Your task to perform on an android device: empty trash in the gmail app Image 0: 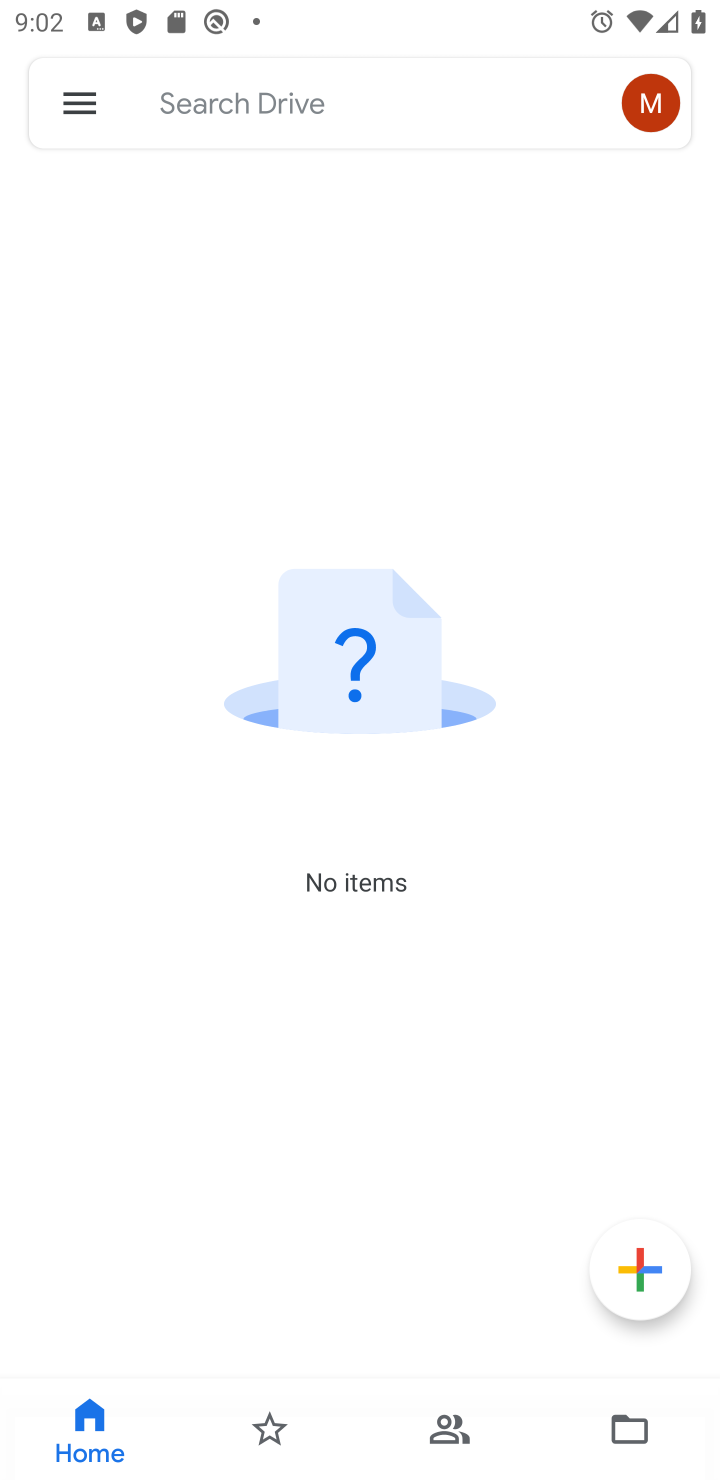
Step 0: press home button
Your task to perform on an android device: empty trash in the gmail app Image 1: 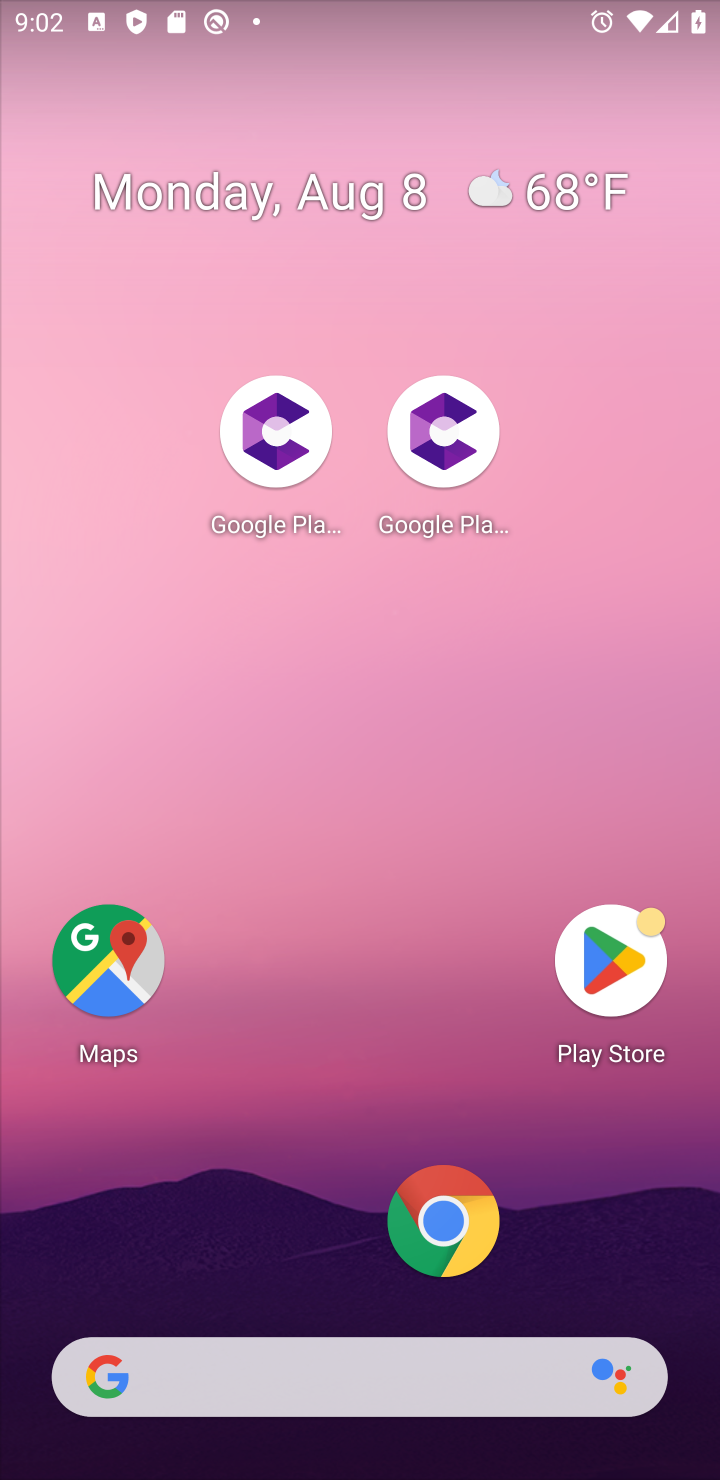
Step 1: drag from (364, 1166) to (327, 188)
Your task to perform on an android device: empty trash in the gmail app Image 2: 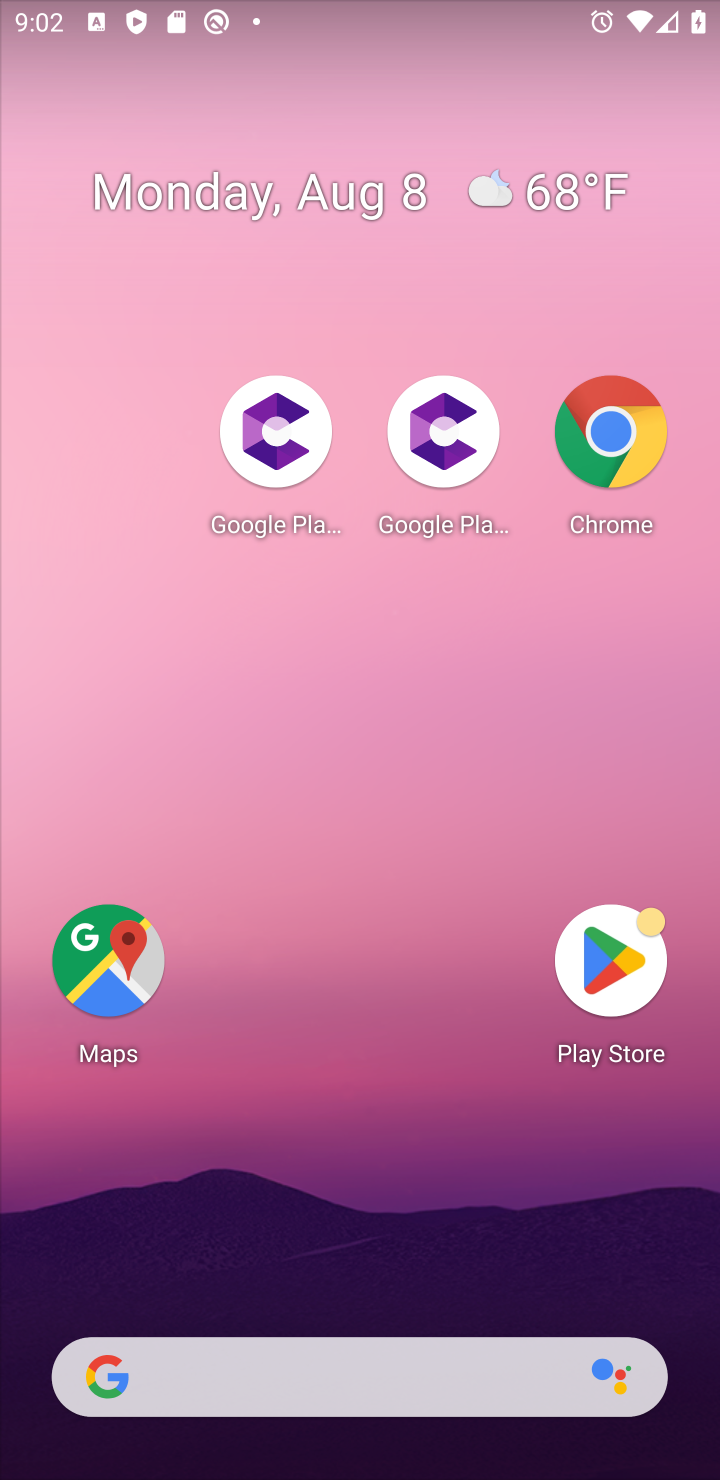
Step 2: drag from (332, 1203) to (356, 345)
Your task to perform on an android device: empty trash in the gmail app Image 3: 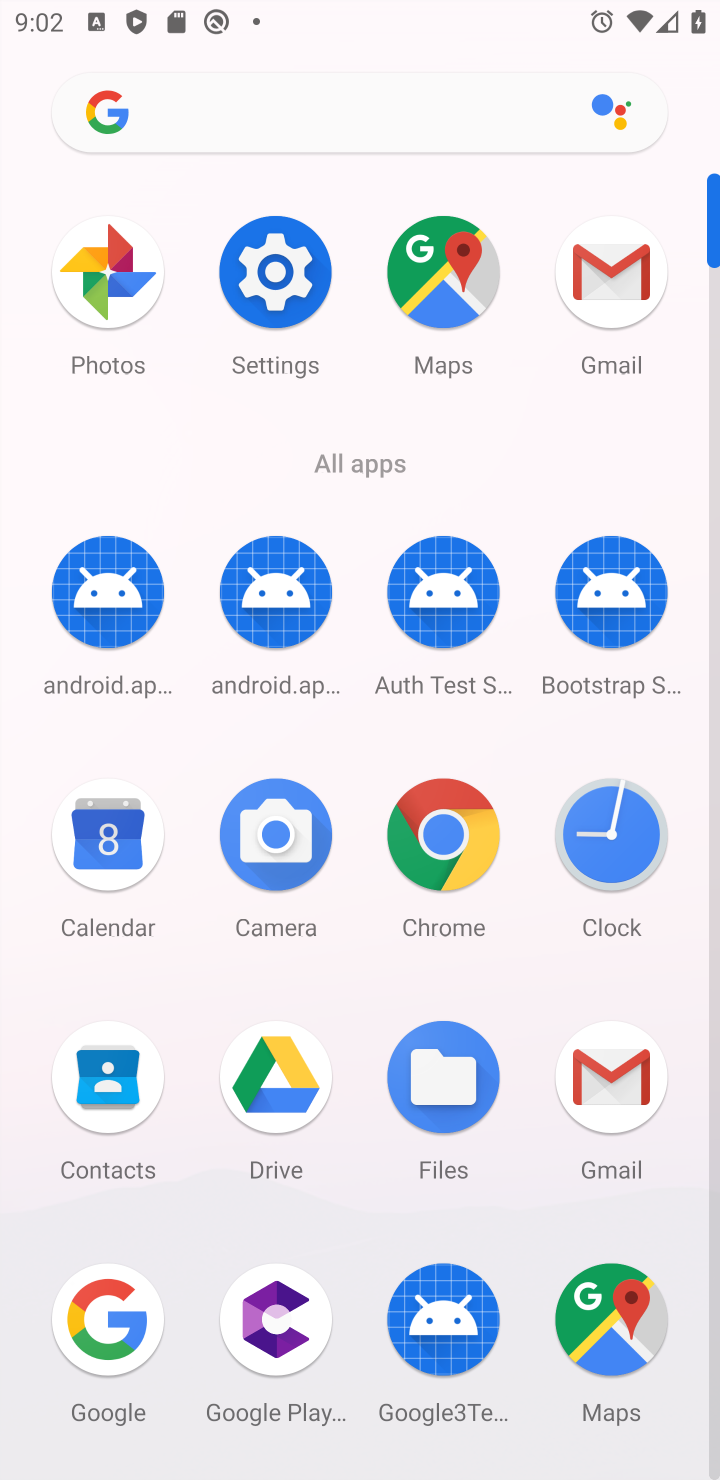
Step 3: click (627, 287)
Your task to perform on an android device: empty trash in the gmail app Image 4: 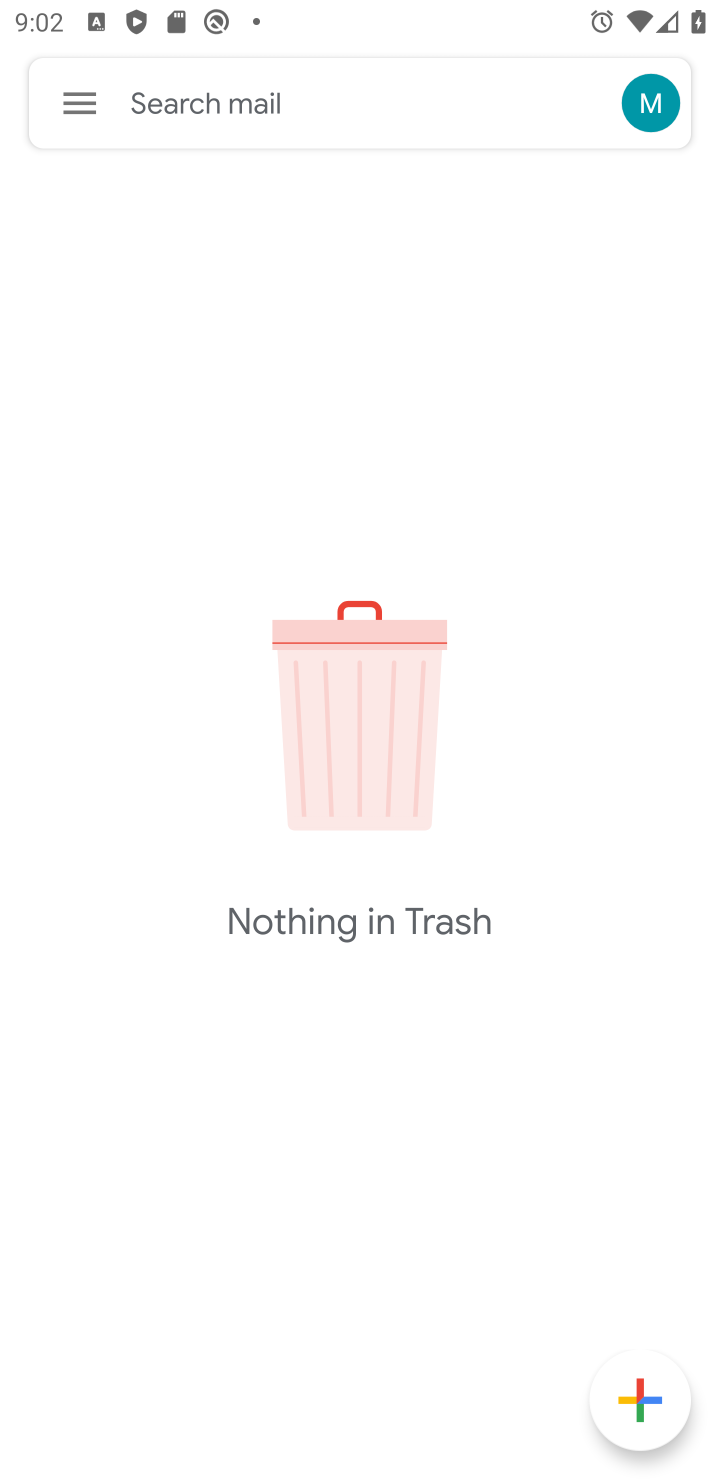
Step 4: task complete